Your task to perform on an android device: Check the weather Image 0: 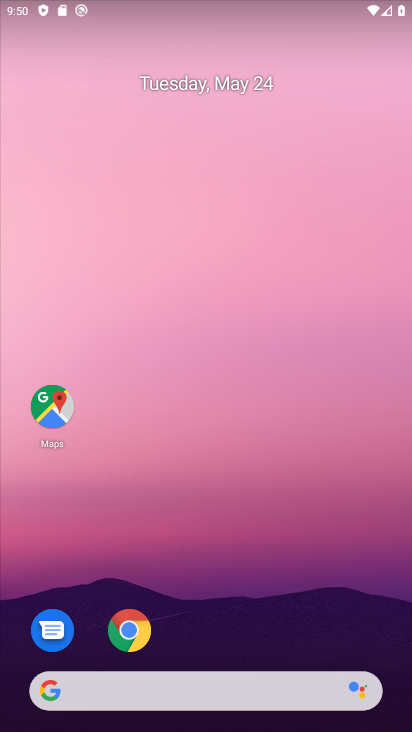
Step 0: press home button
Your task to perform on an android device: Check the weather Image 1: 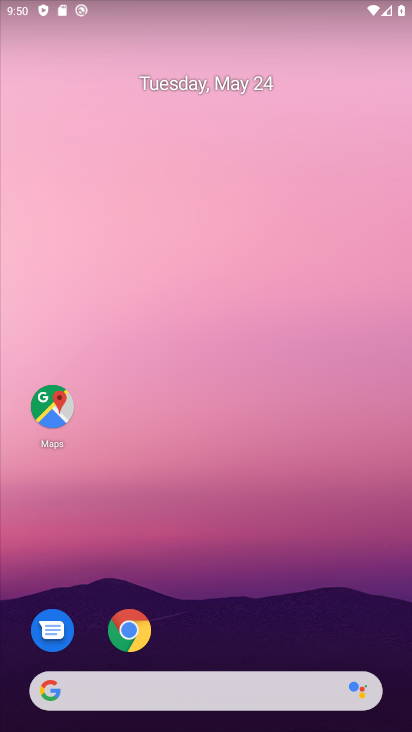
Step 1: drag from (18, 252) to (408, 284)
Your task to perform on an android device: Check the weather Image 2: 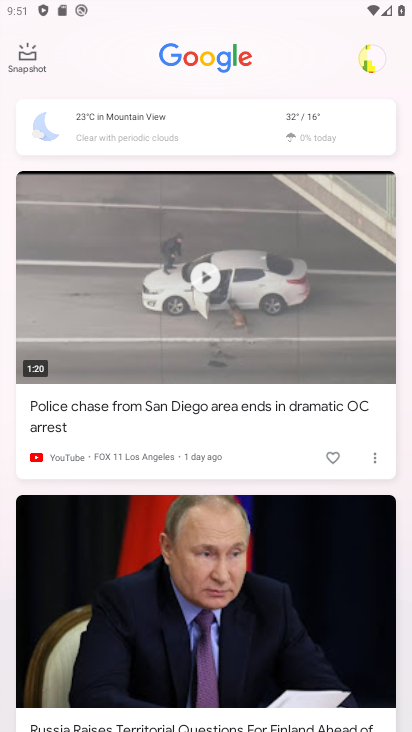
Step 2: click (209, 111)
Your task to perform on an android device: Check the weather Image 3: 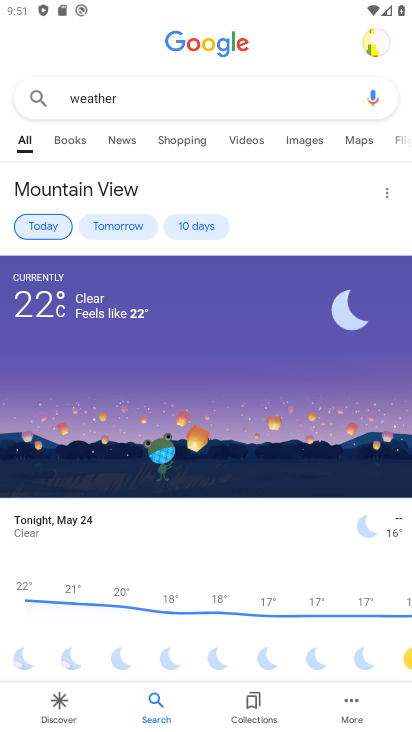
Step 3: task complete